Your task to perform on an android device: empty trash in google photos Image 0: 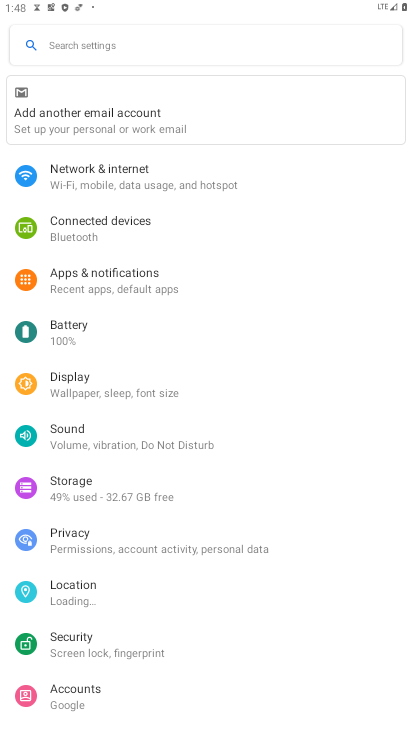
Step 0: press home button
Your task to perform on an android device: empty trash in google photos Image 1: 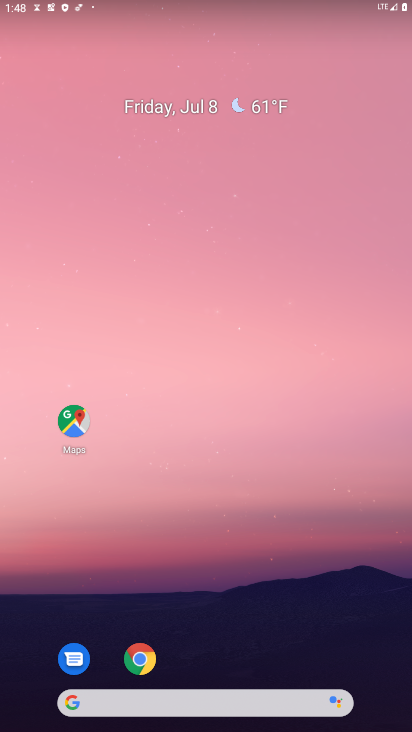
Step 1: drag from (208, 681) to (122, 128)
Your task to perform on an android device: empty trash in google photos Image 2: 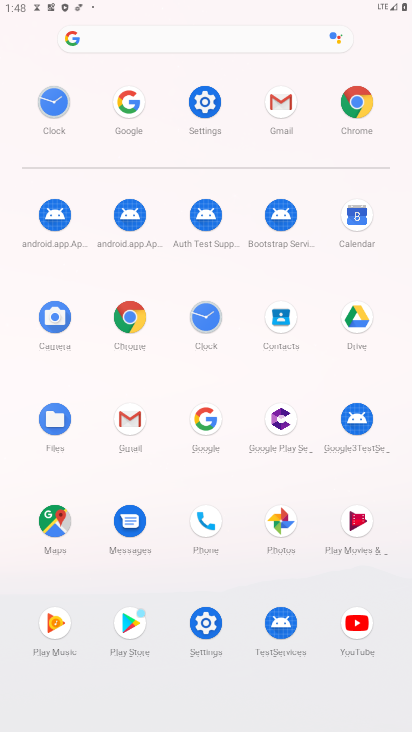
Step 2: click (278, 528)
Your task to perform on an android device: empty trash in google photos Image 3: 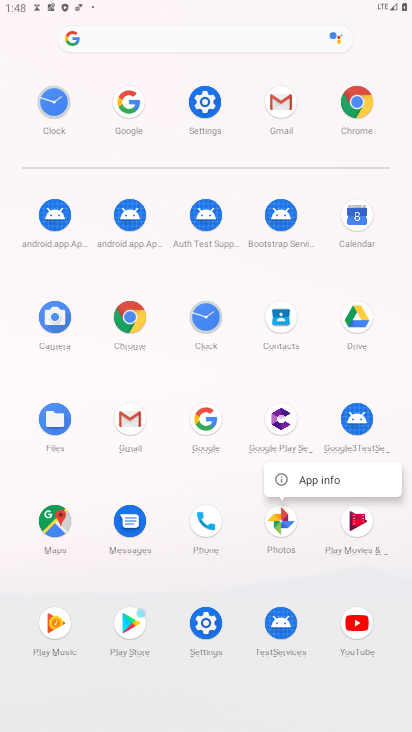
Step 3: click (281, 534)
Your task to perform on an android device: empty trash in google photos Image 4: 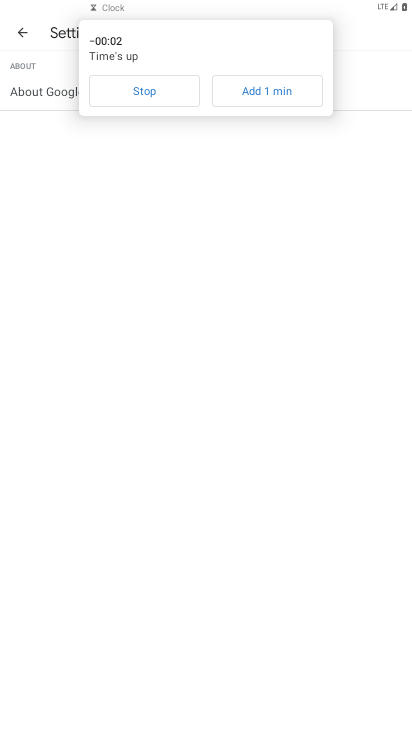
Step 4: click (131, 90)
Your task to perform on an android device: empty trash in google photos Image 5: 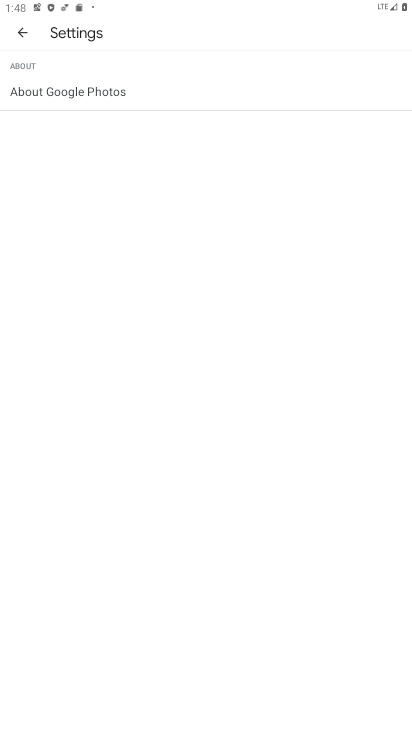
Step 5: click (18, 37)
Your task to perform on an android device: empty trash in google photos Image 6: 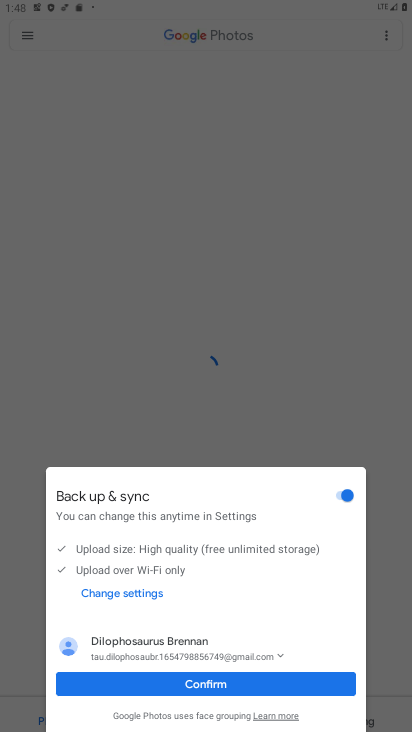
Step 6: click (199, 681)
Your task to perform on an android device: empty trash in google photos Image 7: 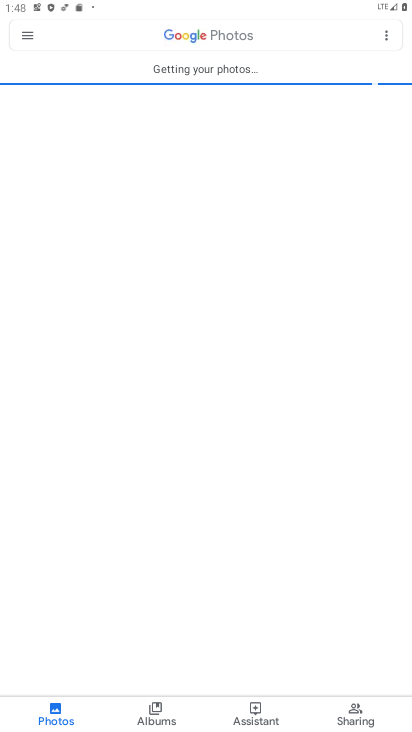
Step 7: click (29, 35)
Your task to perform on an android device: empty trash in google photos Image 8: 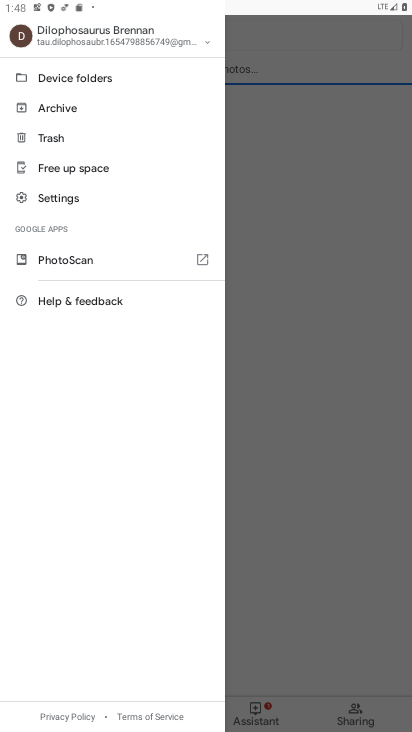
Step 8: click (61, 140)
Your task to perform on an android device: empty trash in google photos Image 9: 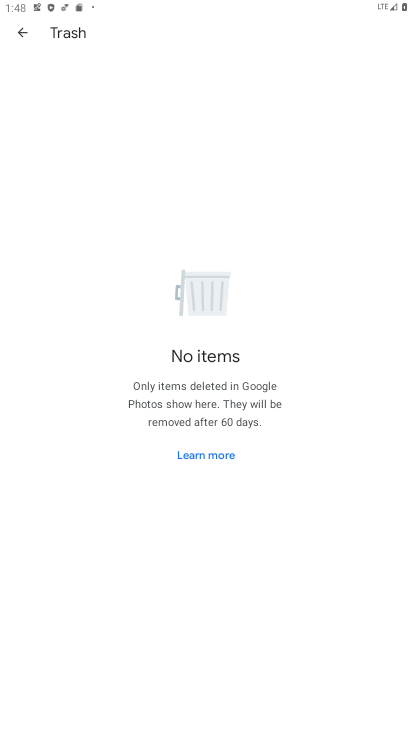
Step 9: task complete